Your task to perform on an android device: Open Google Chrome and click the shortcut for Amazon.com Image 0: 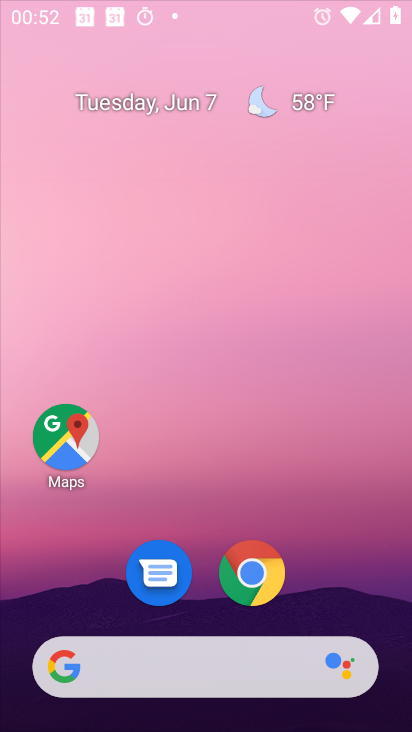
Step 0: press home button
Your task to perform on an android device: Open Google Chrome and click the shortcut for Amazon.com Image 1: 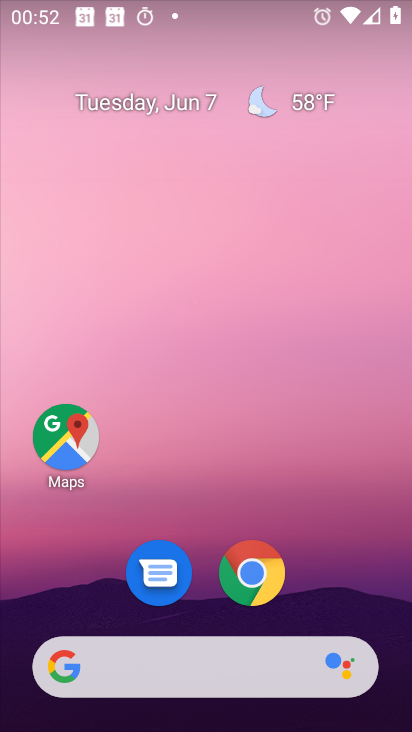
Step 1: click (277, 575)
Your task to perform on an android device: Open Google Chrome and click the shortcut for Amazon.com Image 2: 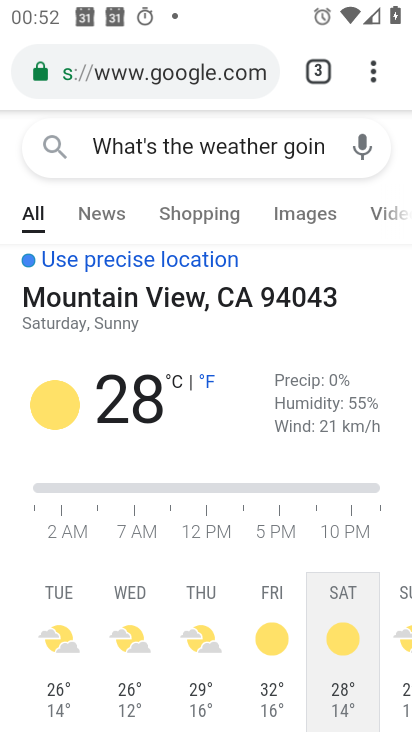
Step 2: drag from (380, 80) to (135, 154)
Your task to perform on an android device: Open Google Chrome and click the shortcut for Amazon.com Image 3: 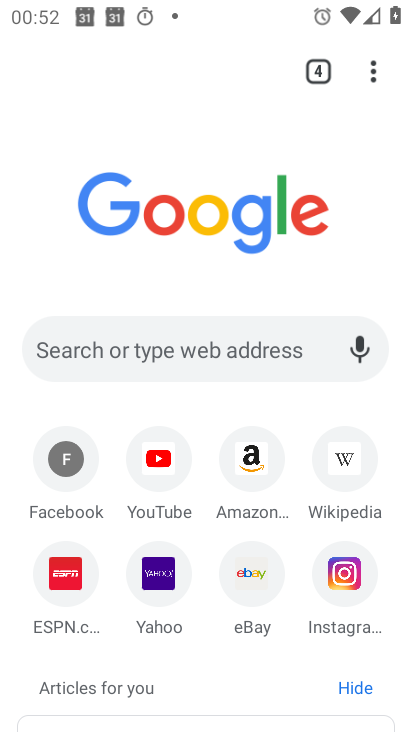
Step 3: click (246, 479)
Your task to perform on an android device: Open Google Chrome and click the shortcut for Amazon.com Image 4: 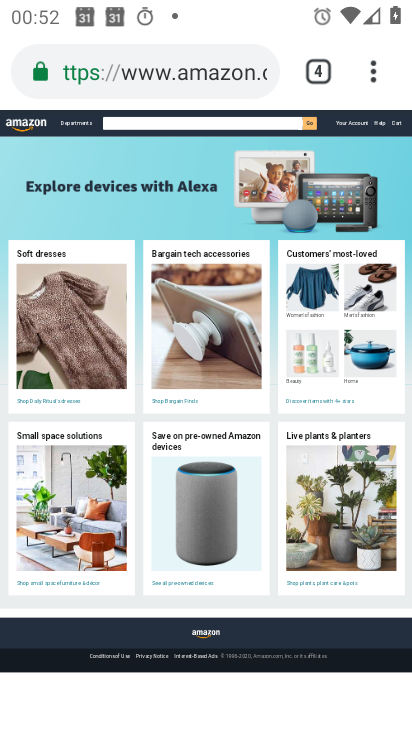
Step 4: task complete